Your task to perform on an android device: Add "lg ultragear" to the cart on newegg.com Image 0: 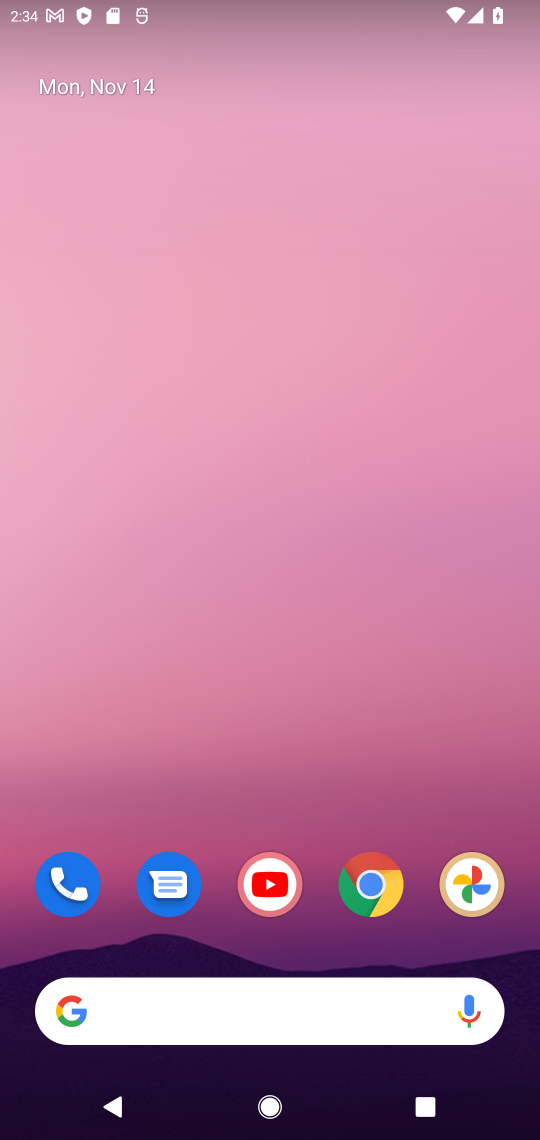
Step 0: click (369, 866)
Your task to perform on an android device: Add "lg ultragear" to the cart on newegg.com Image 1: 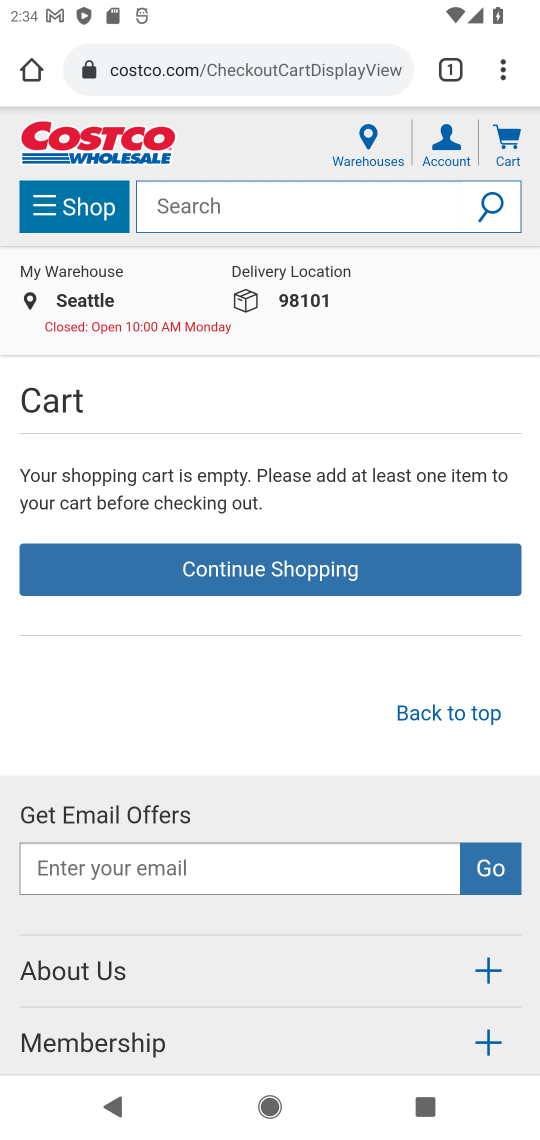
Step 1: click (188, 71)
Your task to perform on an android device: Add "lg ultragear" to the cart on newegg.com Image 2: 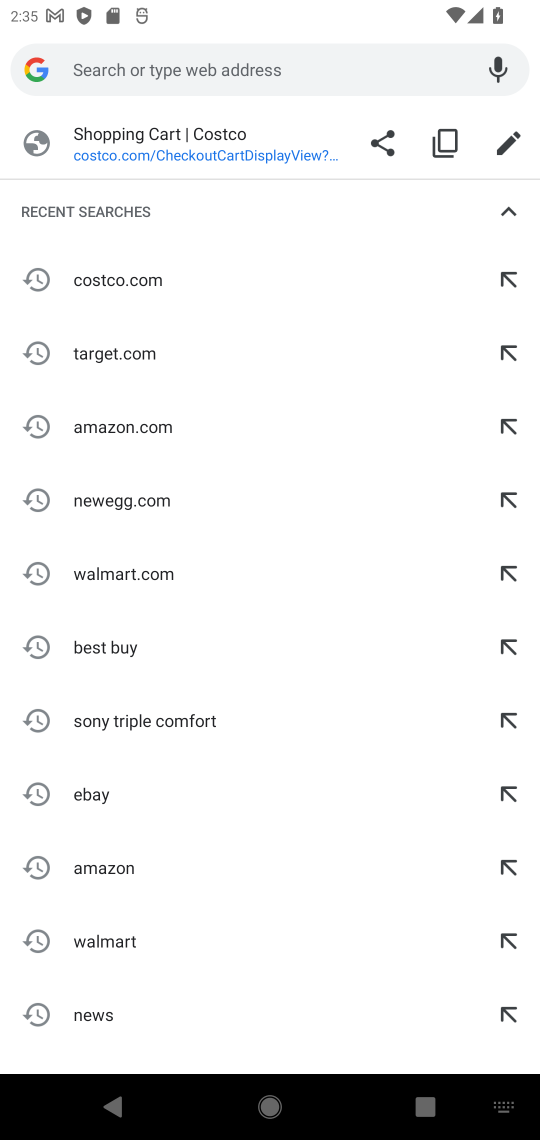
Step 2: click (136, 497)
Your task to perform on an android device: Add "lg ultragear" to the cart on newegg.com Image 3: 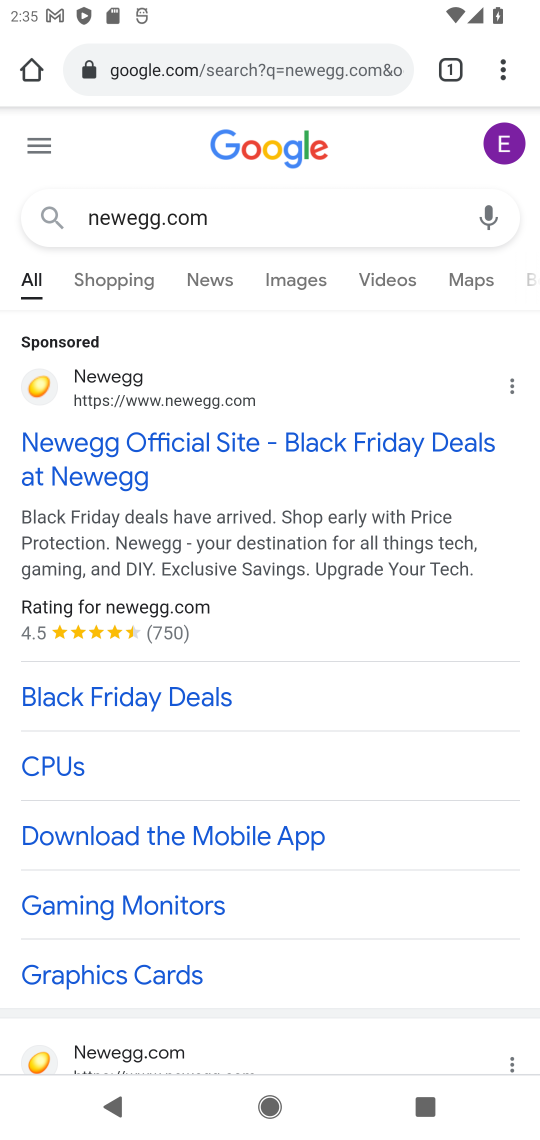
Step 3: click (196, 406)
Your task to perform on an android device: Add "lg ultragear" to the cart on newegg.com Image 4: 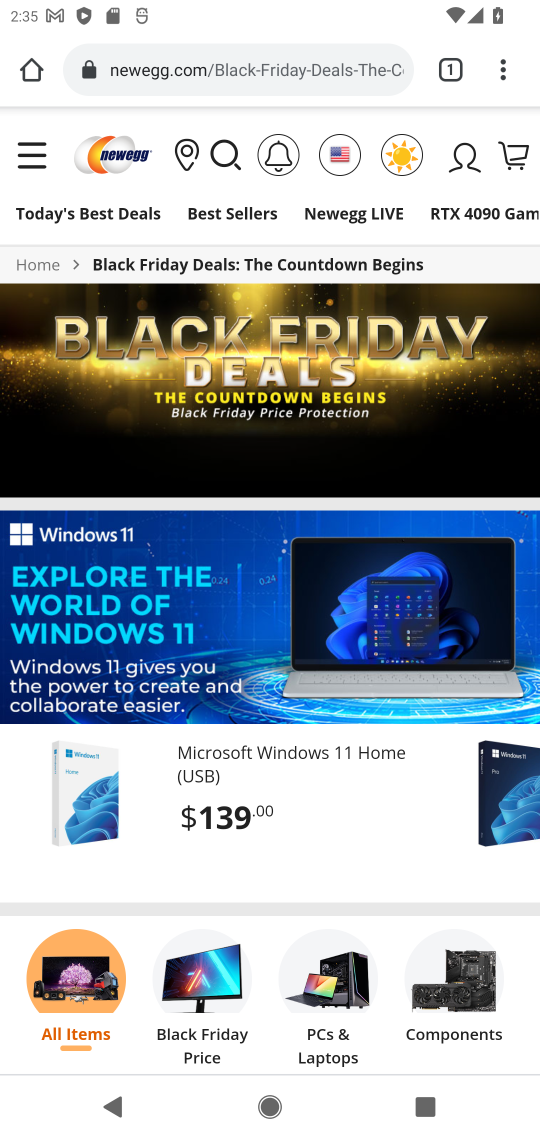
Step 4: click (217, 150)
Your task to perform on an android device: Add "lg ultragear" to the cart on newegg.com Image 5: 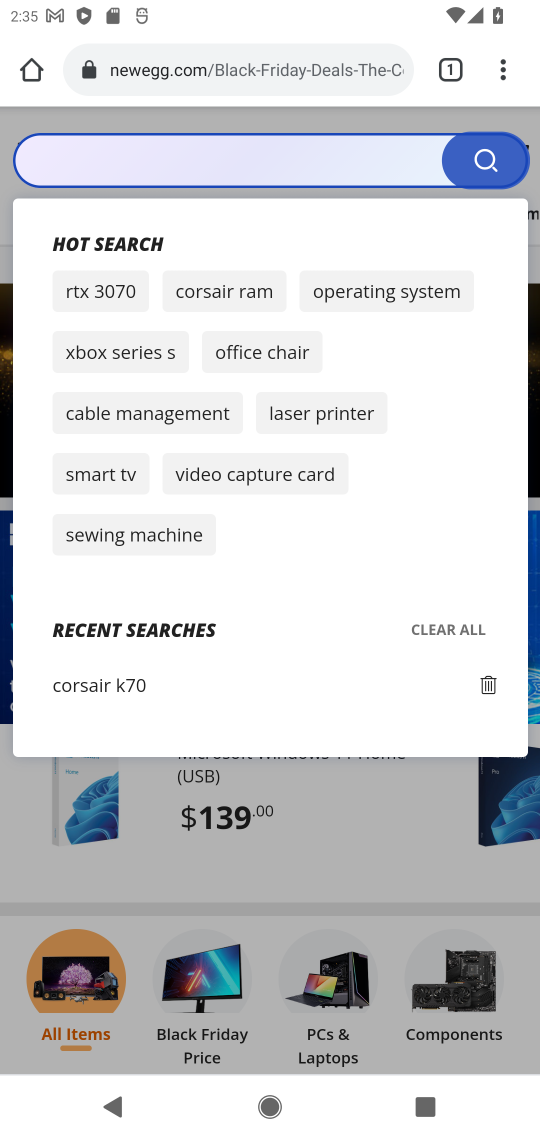
Step 5: click (217, 150)
Your task to perform on an android device: Add "lg ultragear" to the cart on newegg.com Image 6: 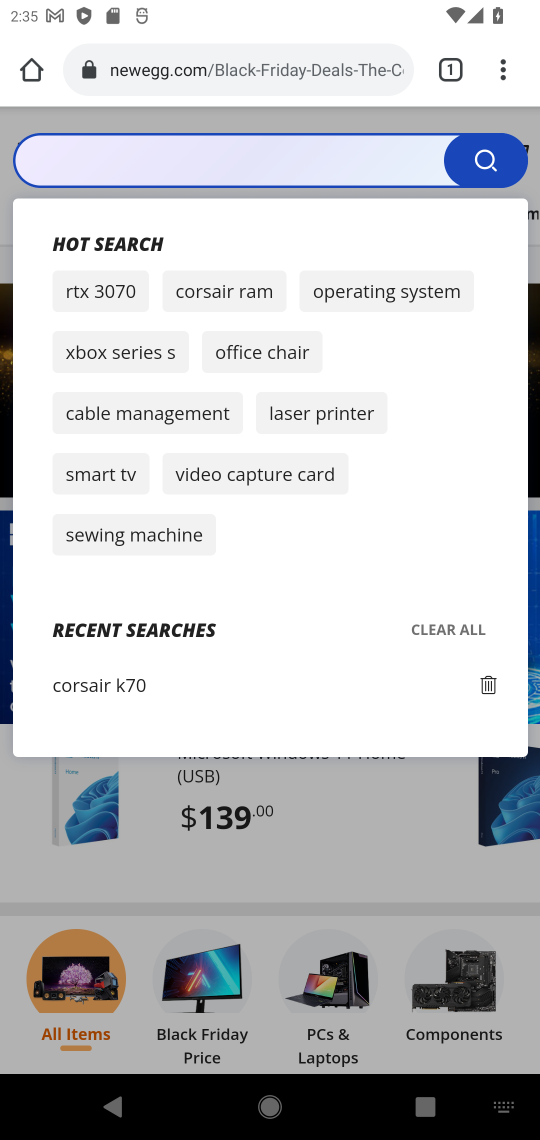
Step 6: type "lg ultragear"
Your task to perform on an android device: Add "lg ultragear" to the cart on newegg.com Image 7: 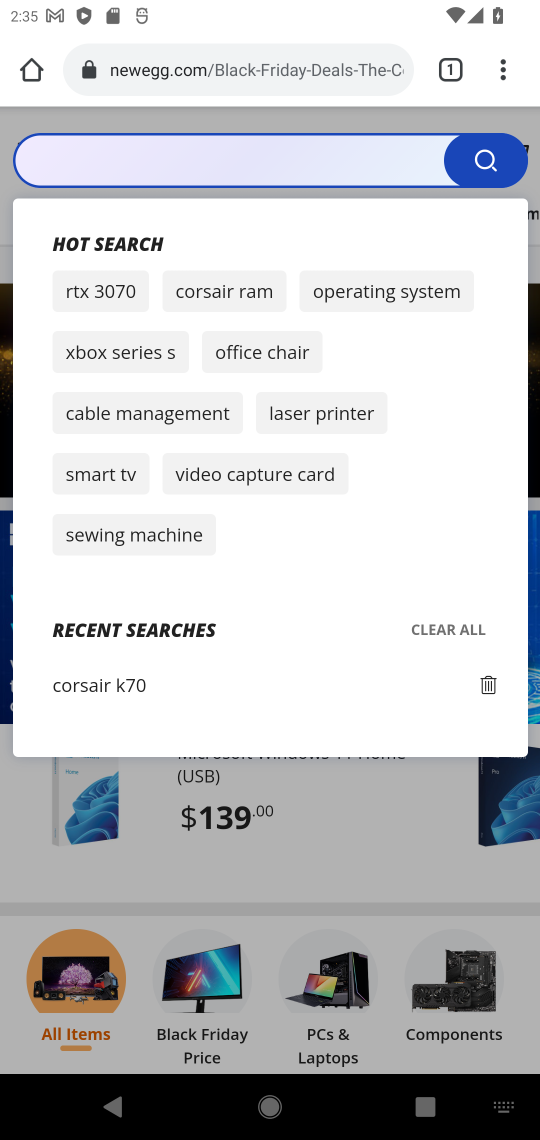
Step 7: press enter
Your task to perform on an android device: Add "lg ultragear" to the cart on newegg.com Image 8: 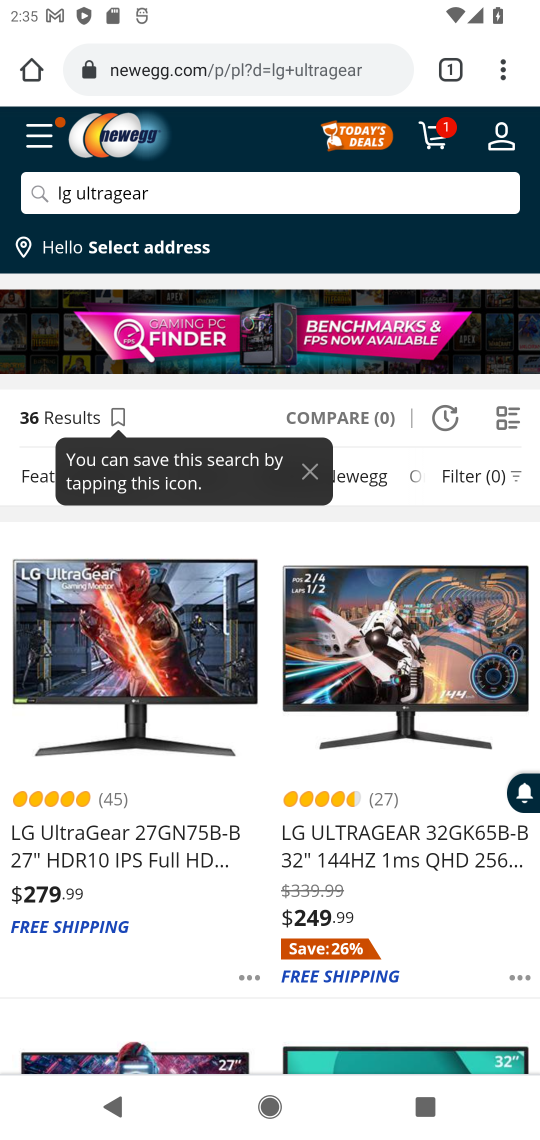
Step 8: click (103, 644)
Your task to perform on an android device: Add "lg ultragear" to the cart on newegg.com Image 9: 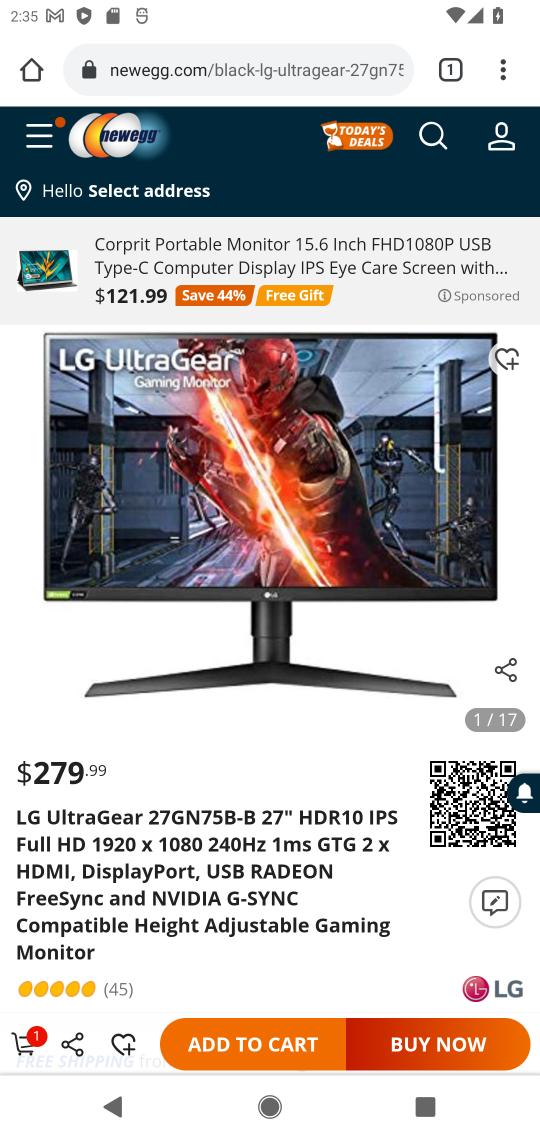
Step 9: click (225, 1047)
Your task to perform on an android device: Add "lg ultragear" to the cart on newegg.com Image 10: 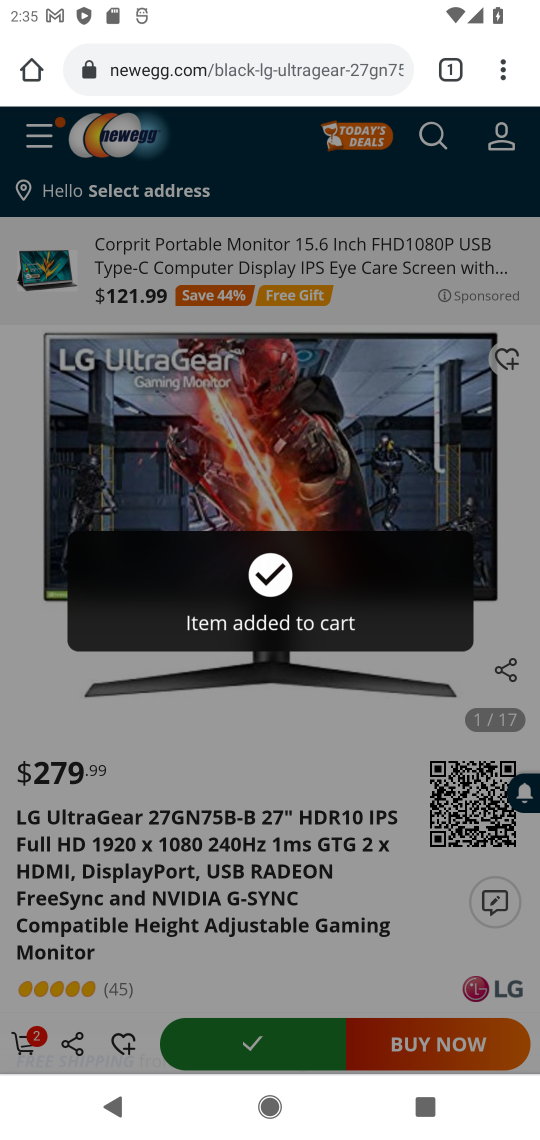
Step 10: task complete